Your task to perform on an android device: Show me productivity apps on the Play Store Image 0: 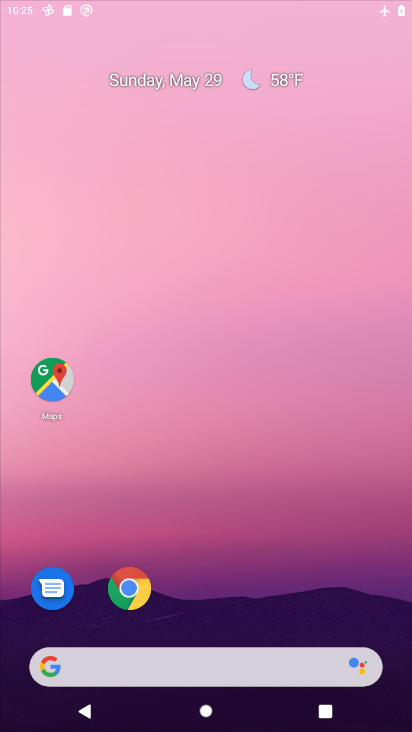
Step 0: drag from (234, 314) to (219, 96)
Your task to perform on an android device: Show me productivity apps on the Play Store Image 1: 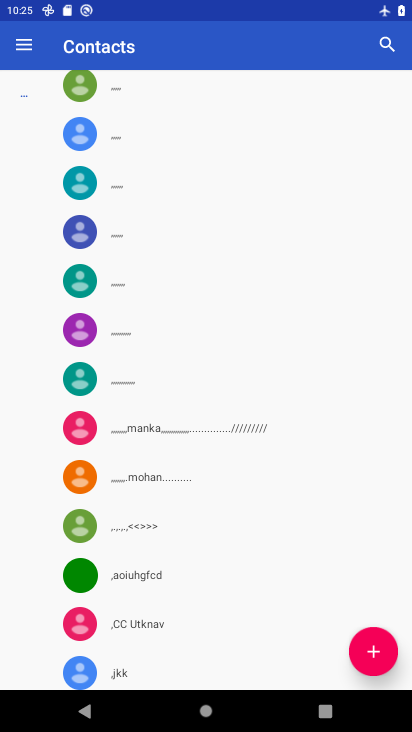
Step 1: press back button
Your task to perform on an android device: Show me productivity apps on the Play Store Image 2: 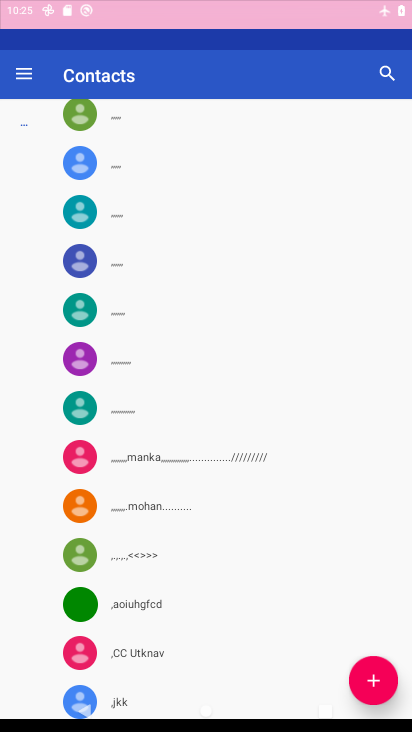
Step 2: press back button
Your task to perform on an android device: Show me productivity apps on the Play Store Image 3: 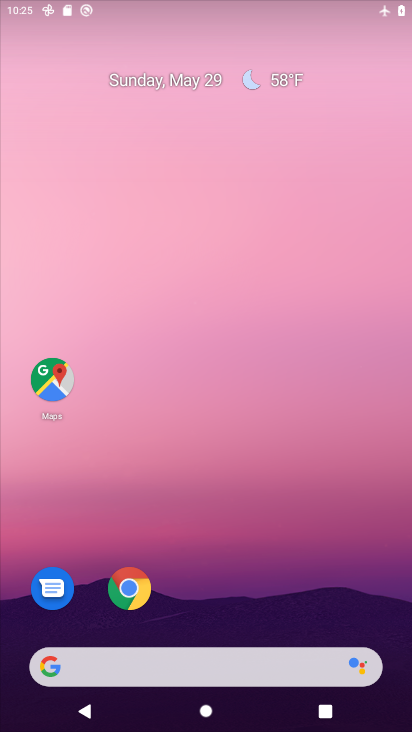
Step 3: press back button
Your task to perform on an android device: Show me productivity apps on the Play Store Image 4: 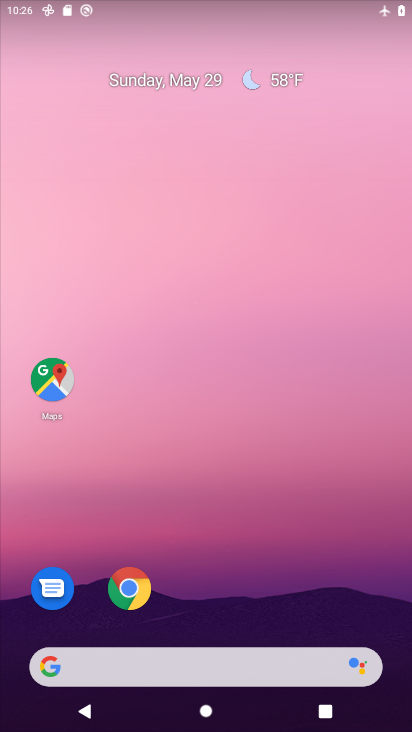
Step 4: drag from (234, 655) to (149, 147)
Your task to perform on an android device: Show me productivity apps on the Play Store Image 5: 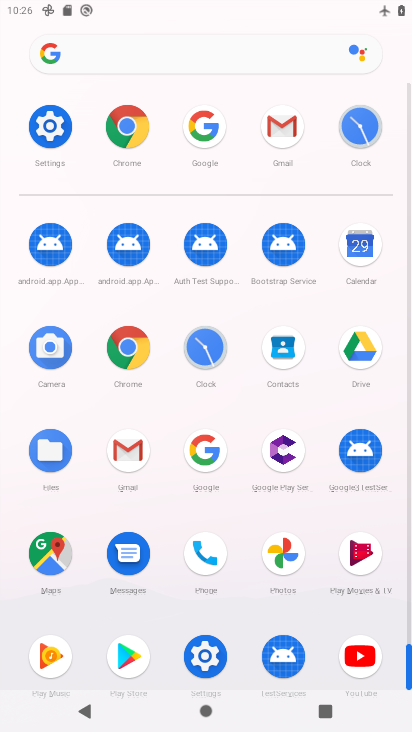
Step 5: click (128, 652)
Your task to perform on an android device: Show me productivity apps on the Play Store Image 6: 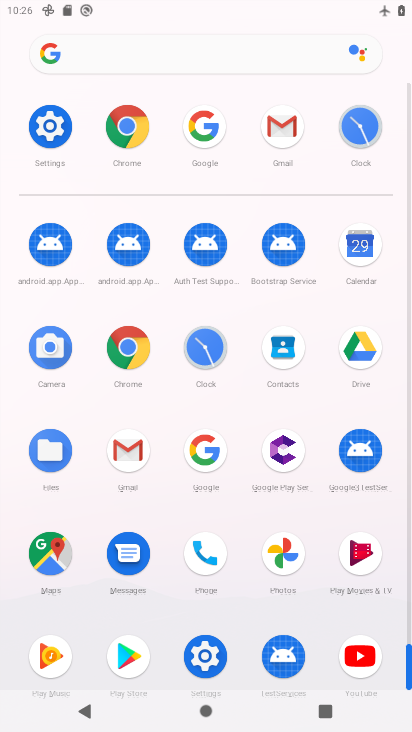
Step 6: click (128, 652)
Your task to perform on an android device: Show me productivity apps on the Play Store Image 7: 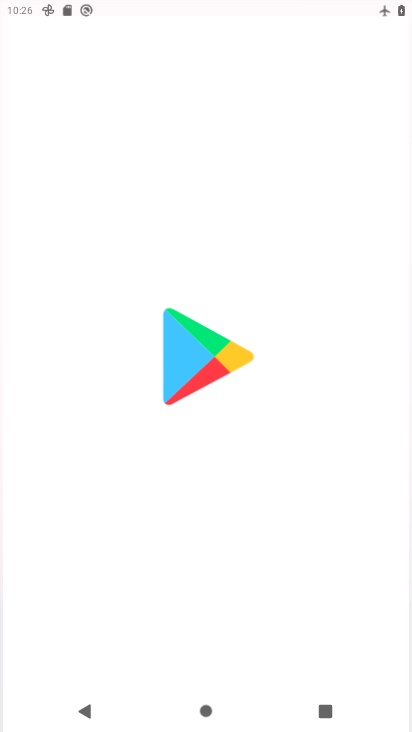
Step 7: click (128, 652)
Your task to perform on an android device: Show me productivity apps on the Play Store Image 8: 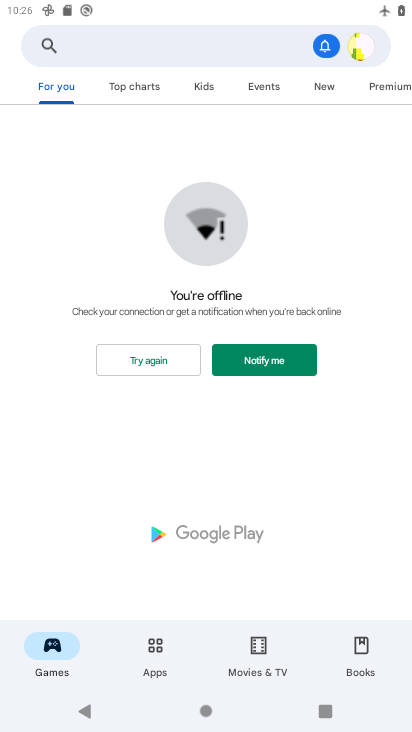
Step 8: click (93, 47)
Your task to perform on an android device: Show me productivity apps on the Play Store Image 9: 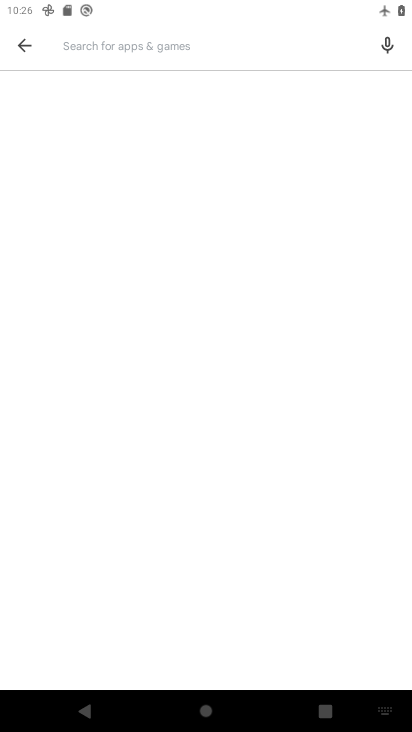
Step 9: type "productivity apps"
Your task to perform on an android device: Show me productivity apps on the Play Store Image 10: 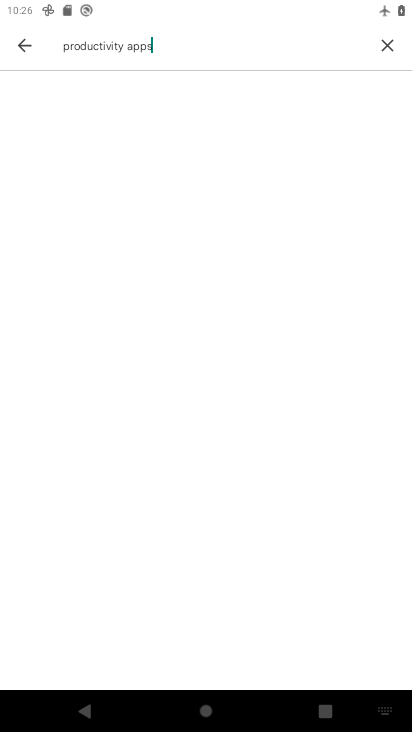
Step 10: click (177, 49)
Your task to perform on an android device: Show me productivity apps on the Play Store Image 11: 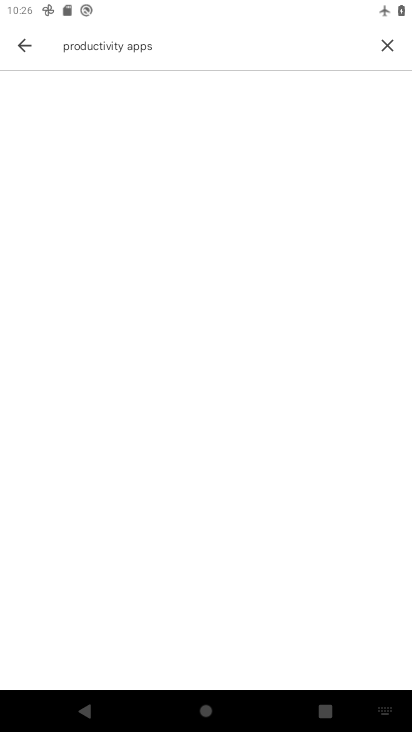
Step 11: click (175, 49)
Your task to perform on an android device: Show me productivity apps on the Play Store Image 12: 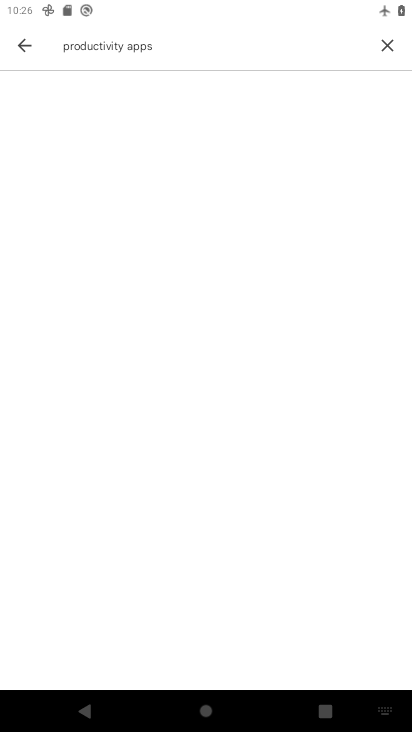
Step 12: click (175, 49)
Your task to perform on an android device: Show me productivity apps on the Play Store Image 13: 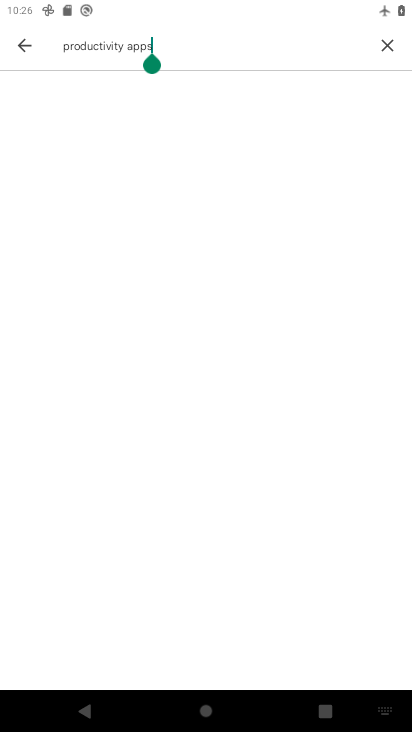
Step 13: click (175, 49)
Your task to perform on an android device: Show me productivity apps on the Play Store Image 14: 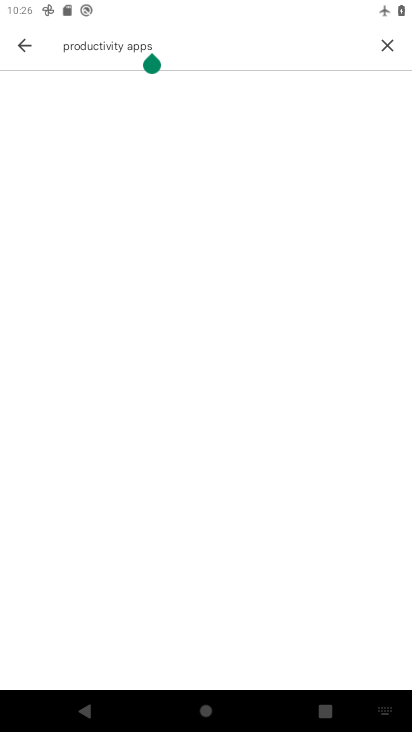
Step 14: click (175, 49)
Your task to perform on an android device: Show me productivity apps on the Play Store Image 15: 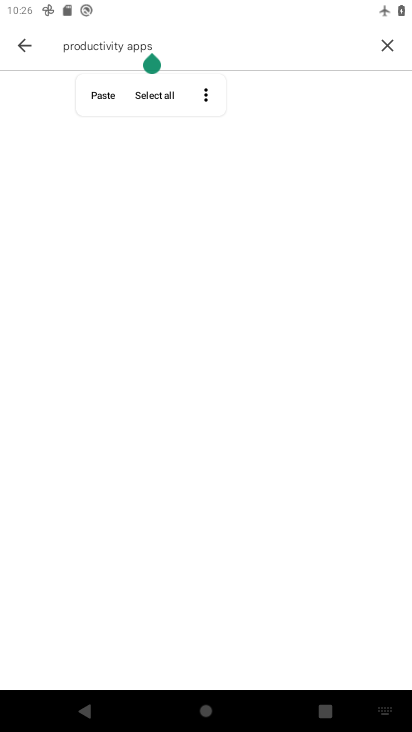
Step 15: click (178, 47)
Your task to perform on an android device: Show me productivity apps on the Play Store Image 16: 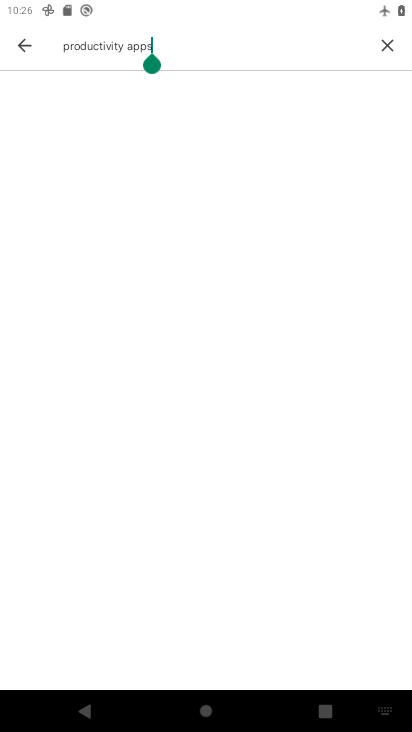
Step 16: click (179, 47)
Your task to perform on an android device: Show me productivity apps on the Play Store Image 17: 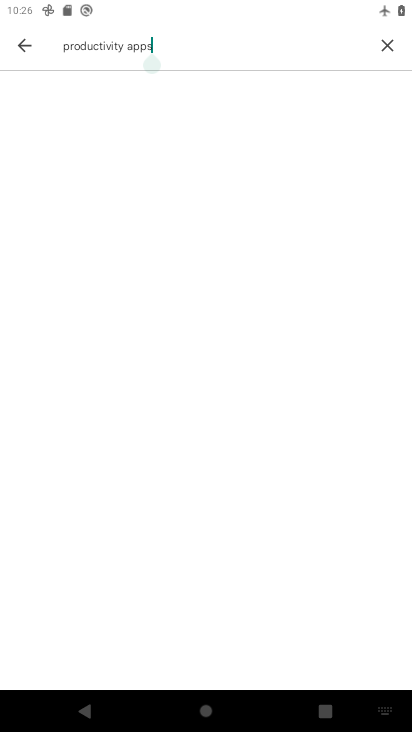
Step 17: click (181, 46)
Your task to perform on an android device: Show me productivity apps on the Play Store Image 18: 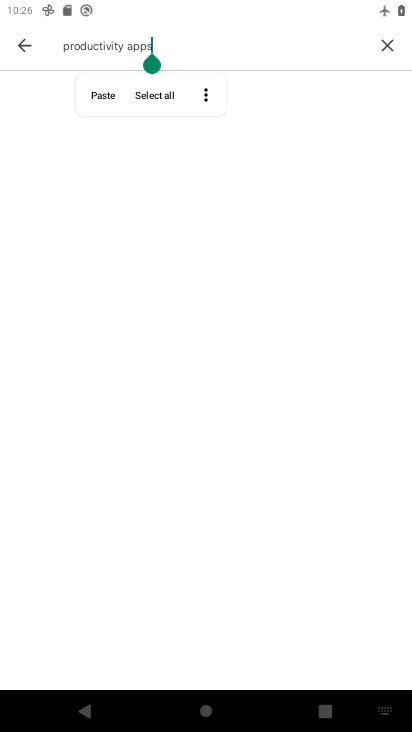
Step 18: click (120, 111)
Your task to perform on an android device: Show me productivity apps on the Play Store Image 19: 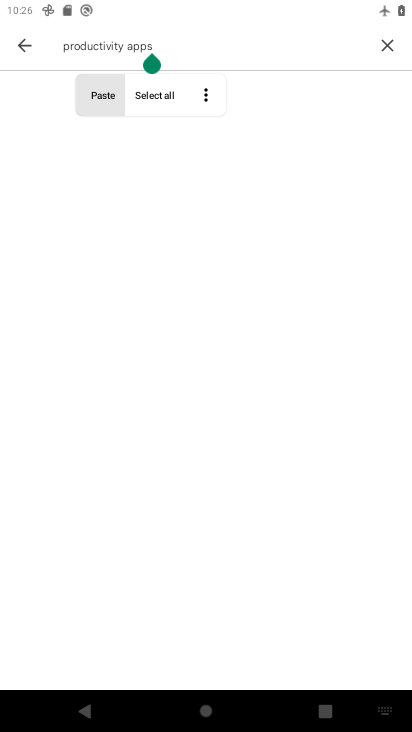
Step 19: click (120, 100)
Your task to perform on an android device: Show me productivity apps on the Play Store Image 20: 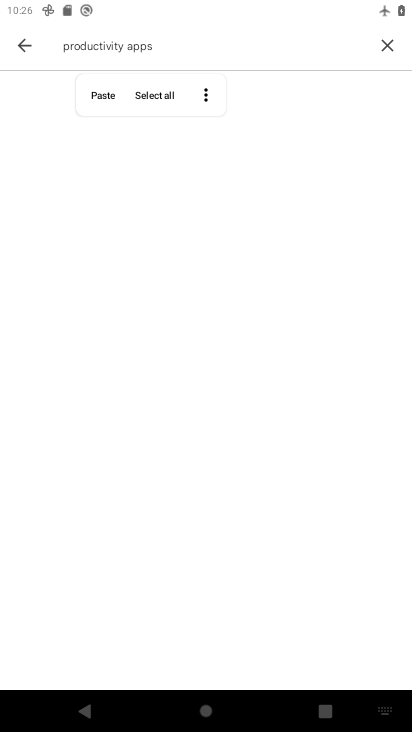
Step 20: click (108, 267)
Your task to perform on an android device: Show me productivity apps on the Play Store Image 21: 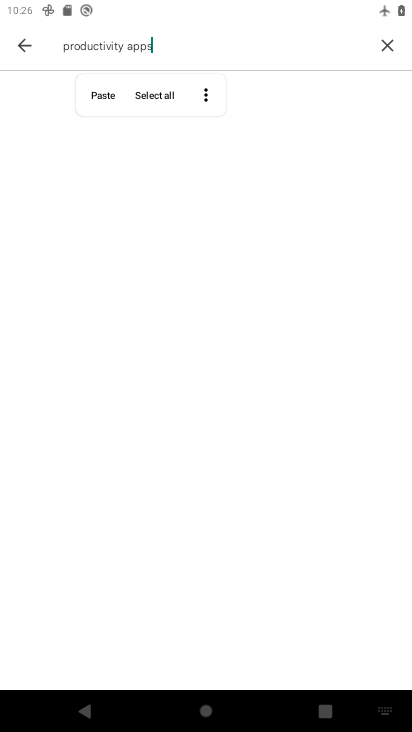
Step 21: task complete